Your task to perform on an android device: change the clock display to digital Image 0: 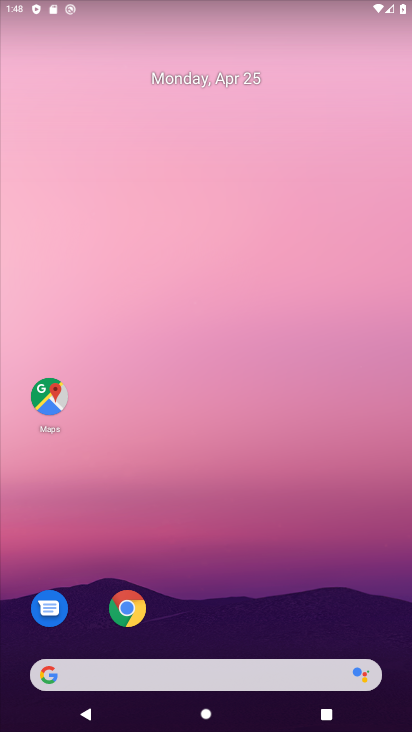
Step 0: drag from (203, 391) to (203, 30)
Your task to perform on an android device: change the clock display to digital Image 1: 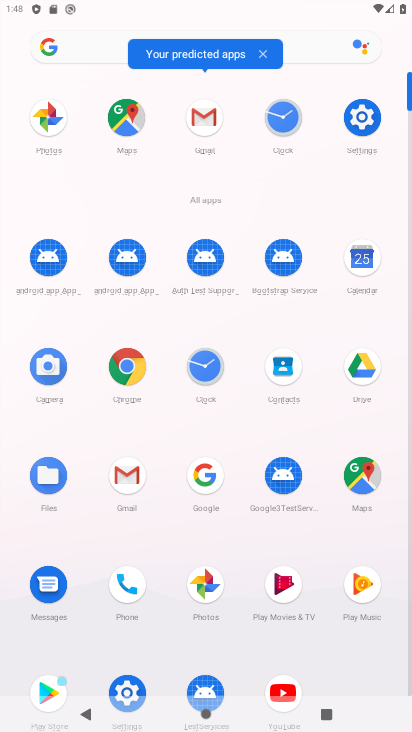
Step 1: click (288, 117)
Your task to perform on an android device: change the clock display to digital Image 2: 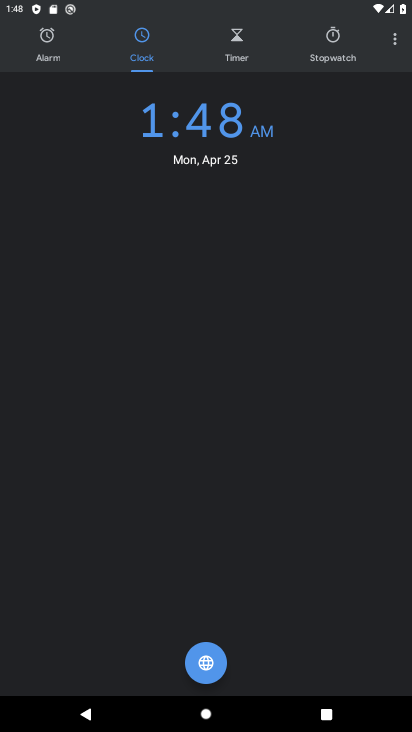
Step 2: click (397, 49)
Your task to perform on an android device: change the clock display to digital Image 3: 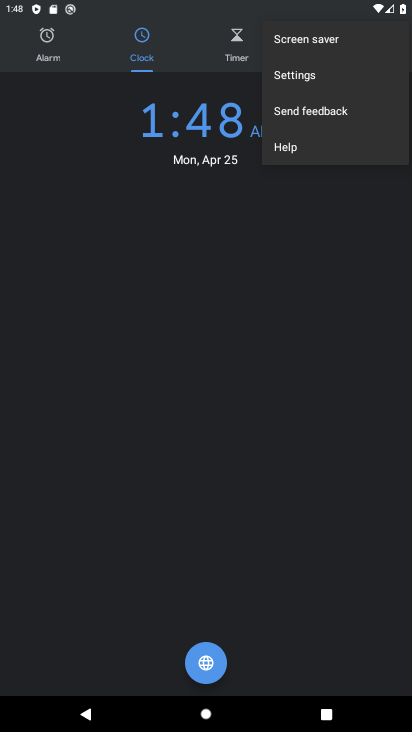
Step 3: click (330, 75)
Your task to perform on an android device: change the clock display to digital Image 4: 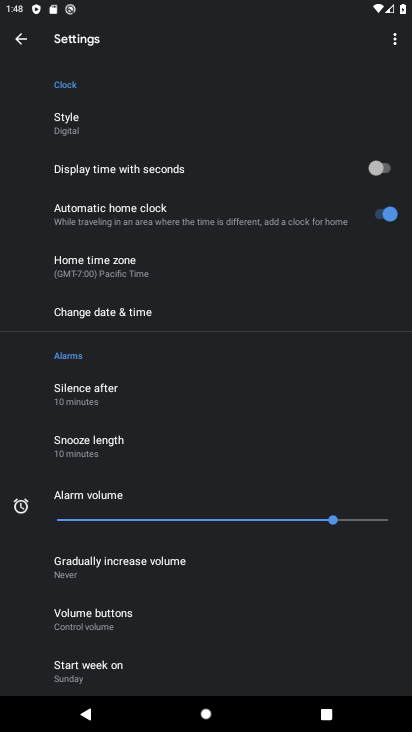
Step 4: click (167, 118)
Your task to perform on an android device: change the clock display to digital Image 5: 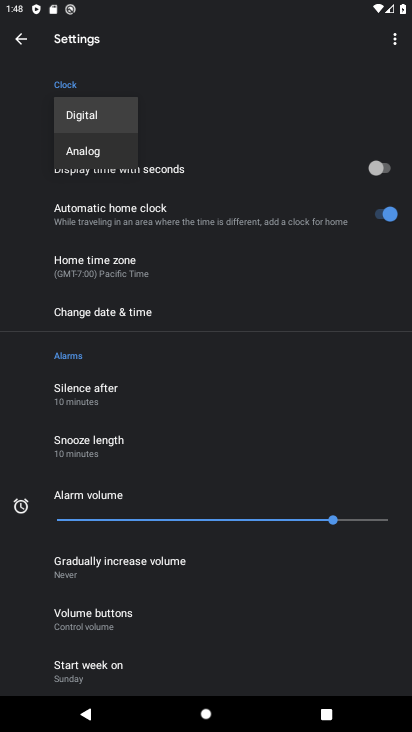
Step 5: task complete